Your task to perform on an android device: Go to accessibility settings Image 0: 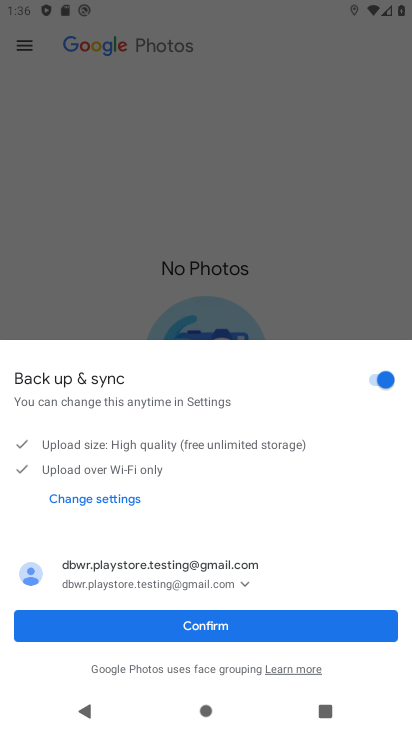
Step 0: press home button
Your task to perform on an android device: Go to accessibility settings Image 1: 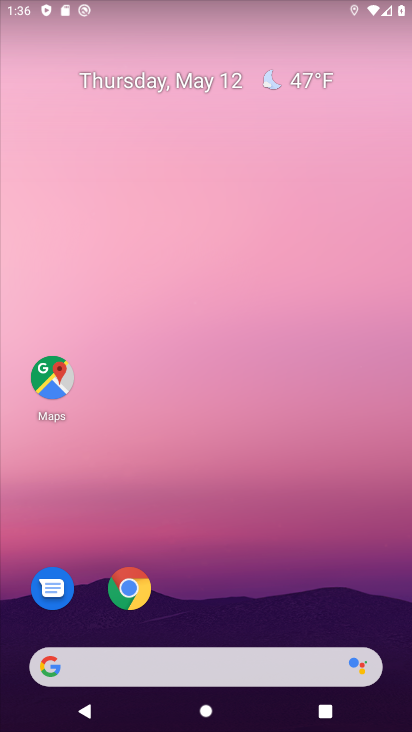
Step 1: drag from (397, 648) to (286, 34)
Your task to perform on an android device: Go to accessibility settings Image 2: 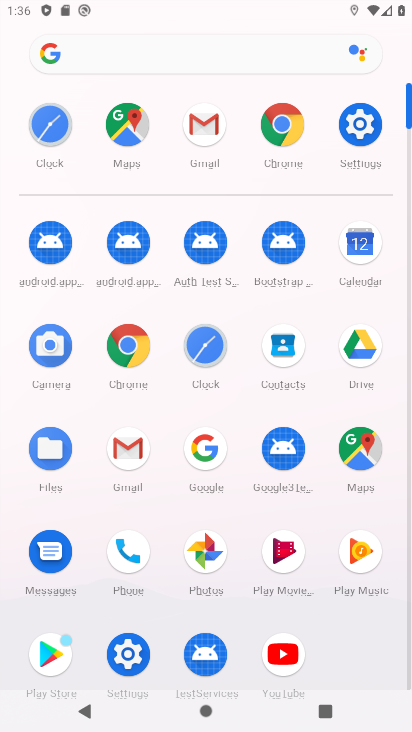
Step 2: click (124, 650)
Your task to perform on an android device: Go to accessibility settings Image 3: 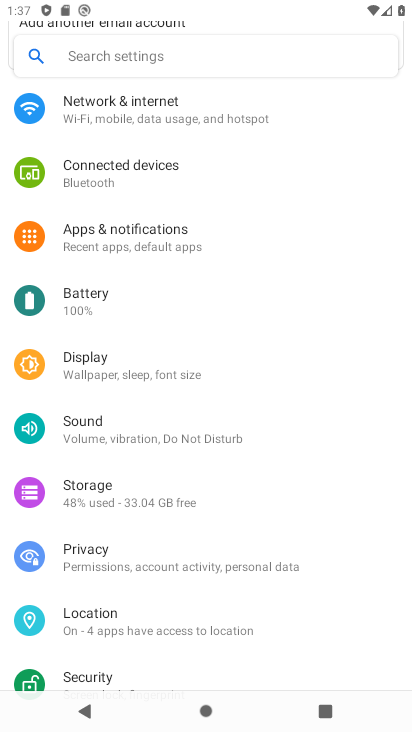
Step 3: drag from (117, 608) to (175, 142)
Your task to perform on an android device: Go to accessibility settings Image 4: 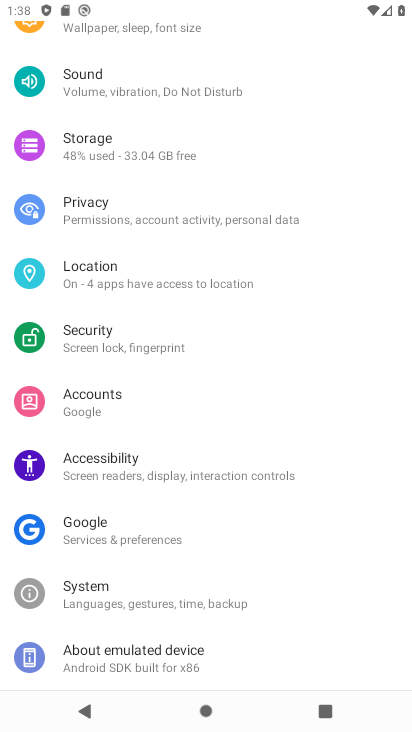
Step 4: click (158, 464)
Your task to perform on an android device: Go to accessibility settings Image 5: 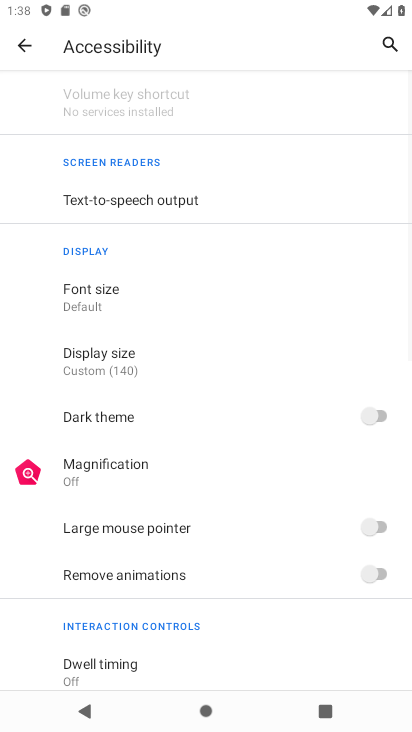
Step 5: task complete